Your task to perform on an android device: move an email to a new category in the gmail app Image 0: 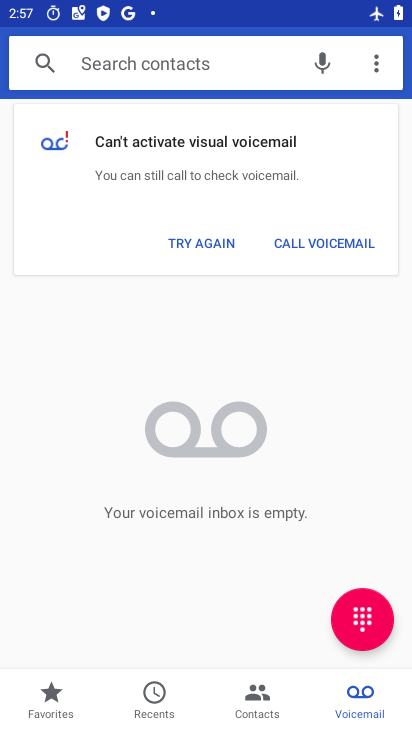
Step 0: drag from (184, 630) to (224, 210)
Your task to perform on an android device: move an email to a new category in the gmail app Image 1: 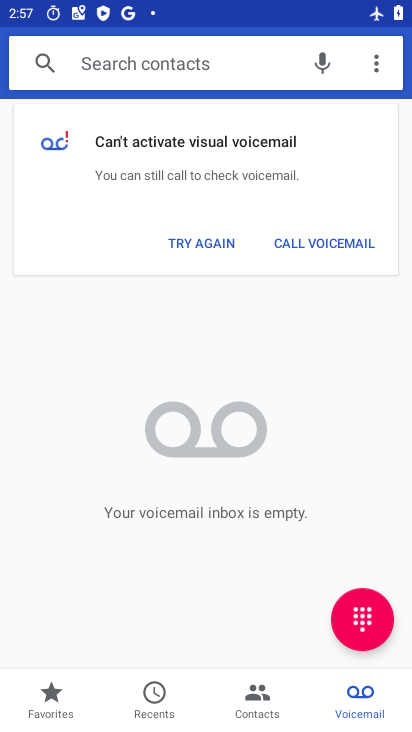
Step 1: press home button
Your task to perform on an android device: move an email to a new category in the gmail app Image 2: 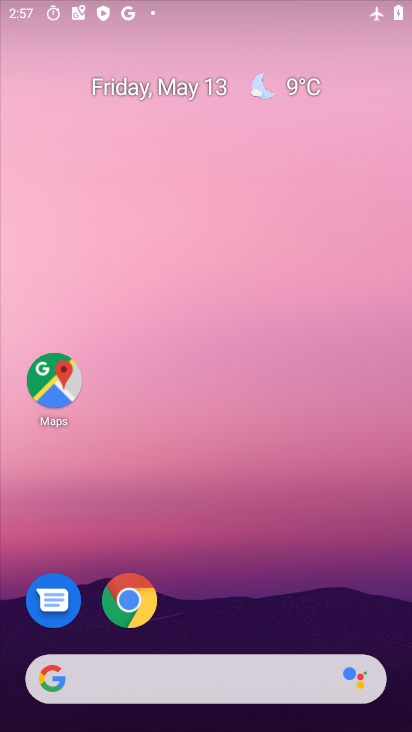
Step 2: drag from (175, 602) to (257, 119)
Your task to perform on an android device: move an email to a new category in the gmail app Image 3: 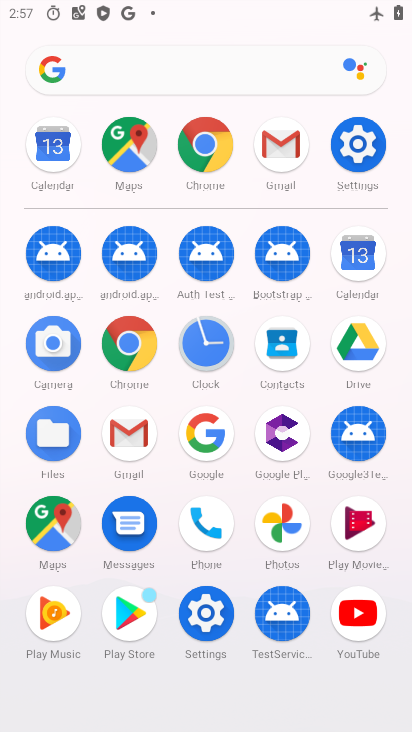
Step 3: click (128, 432)
Your task to perform on an android device: move an email to a new category in the gmail app Image 4: 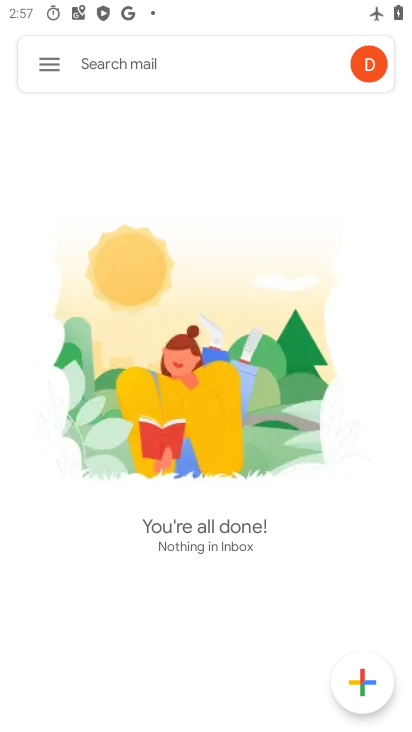
Step 4: click (47, 74)
Your task to perform on an android device: move an email to a new category in the gmail app Image 5: 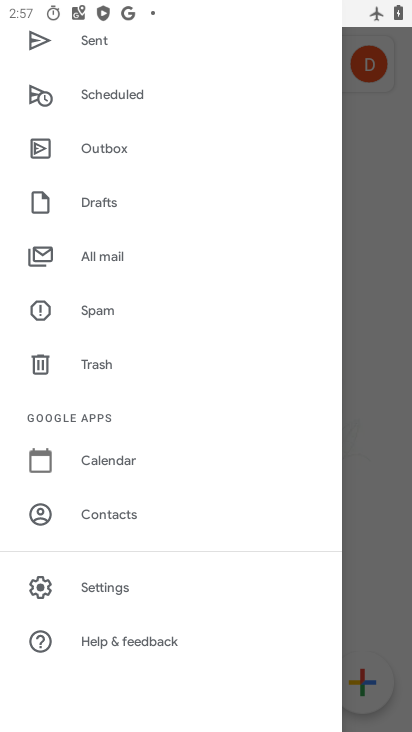
Step 5: click (115, 583)
Your task to perform on an android device: move an email to a new category in the gmail app Image 6: 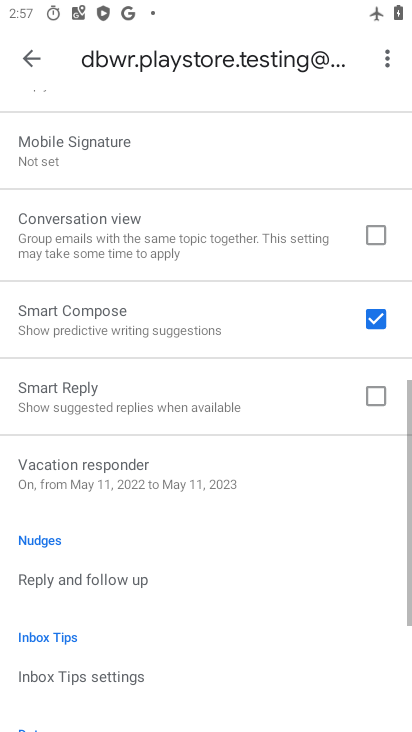
Step 6: click (64, 78)
Your task to perform on an android device: move an email to a new category in the gmail app Image 7: 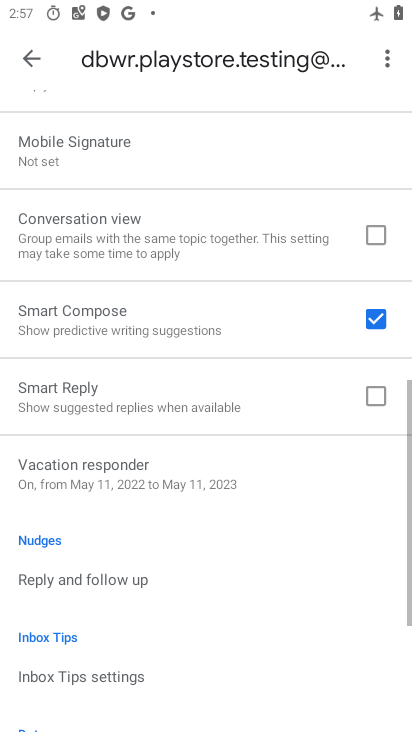
Step 7: click (30, 52)
Your task to perform on an android device: move an email to a new category in the gmail app Image 8: 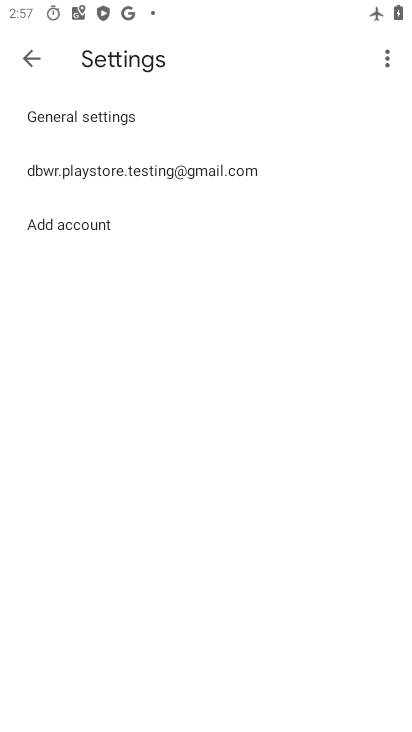
Step 8: click (40, 69)
Your task to perform on an android device: move an email to a new category in the gmail app Image 9: 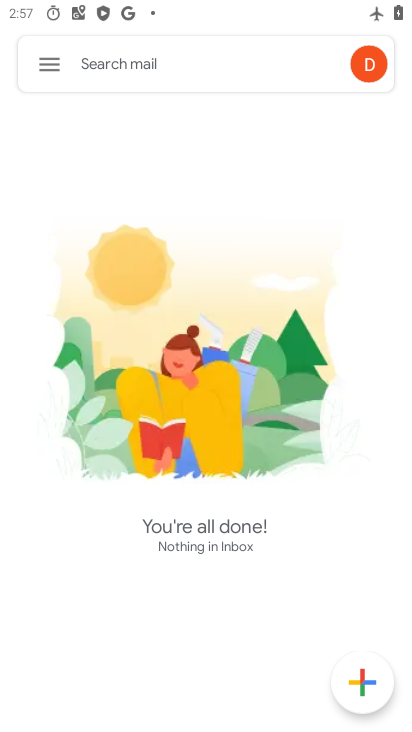
Step 9: drag from (151, 192) to (392, 642)
Your task to perform on an android device: move an email to a new category in the gmail app Image 10: 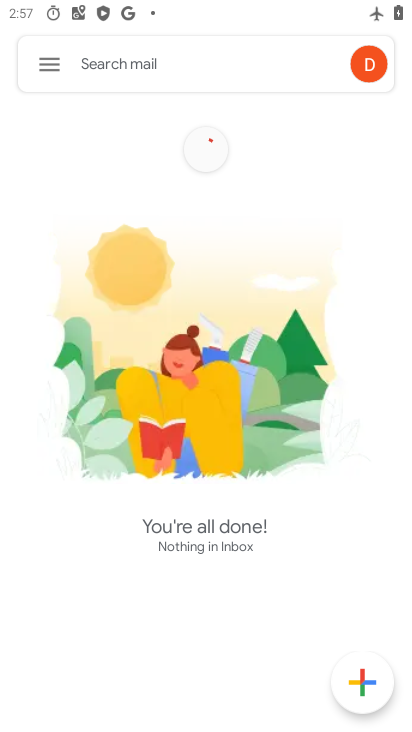
Step 10: click (45, 63)
Your task to perform on an android device: move an email to a new category in the gmail app Image 11: 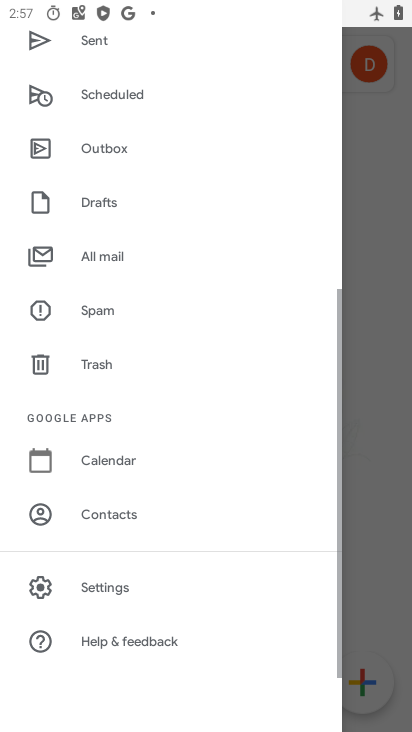
Step 11: drag from (105, 158) to (219, 719)
Your task to perform on an android device: move an email to a new category in the gmail app Image 12: 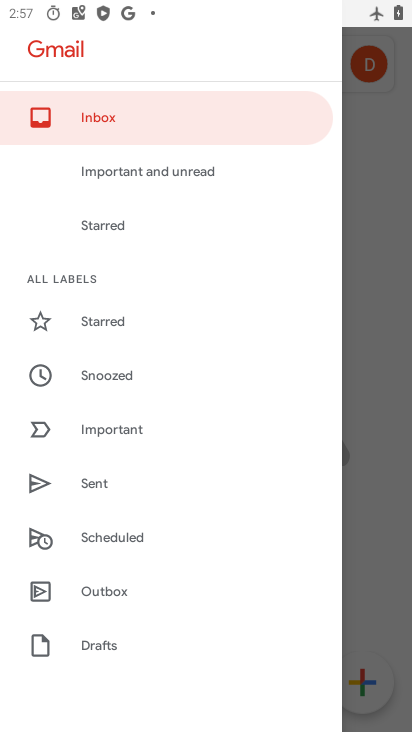
Step 12: click (139, 327)
Your task to perform on an android device: move an email to a new category in the gmail app Image 13: 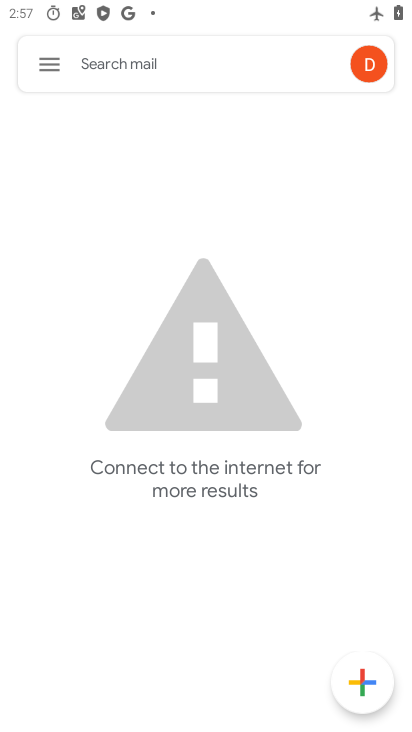
Step 13: click (55, 51)
Your task to perform on an android device: move an email to a new category in the gmail app Image 14: 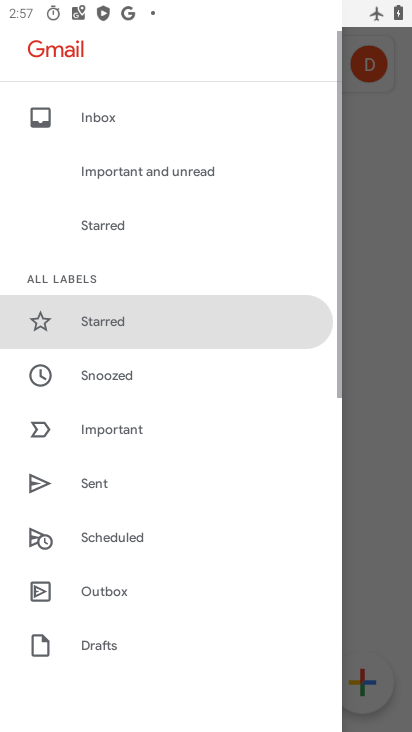
Step 14: drag from (154, 169) to (189, 371)
Your task to perform on an android device: move an email to a new category in the gmail app Image 15: 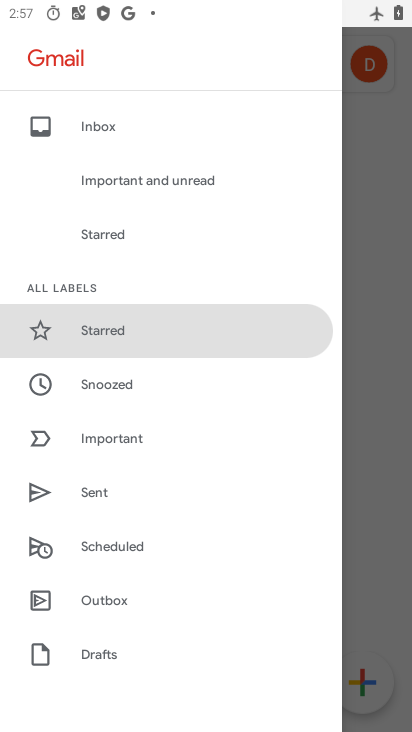
Step 15: click (116, 131)
Your task to perform on an android device: move an email to a new category in the gmail app Image 16: 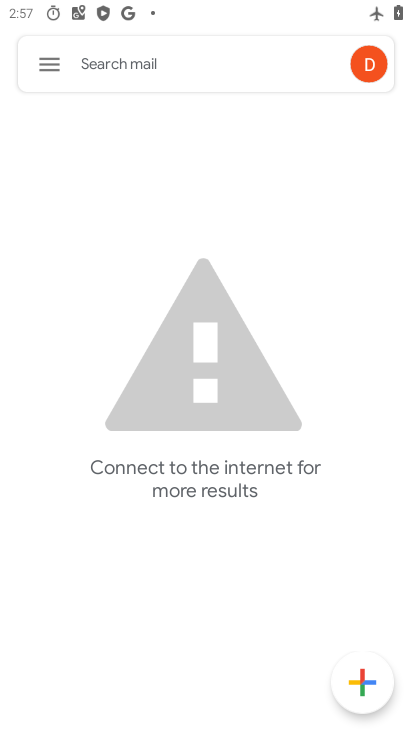
Step 16: task complete